Your task to perform on an android device: change the clock style Image 0: 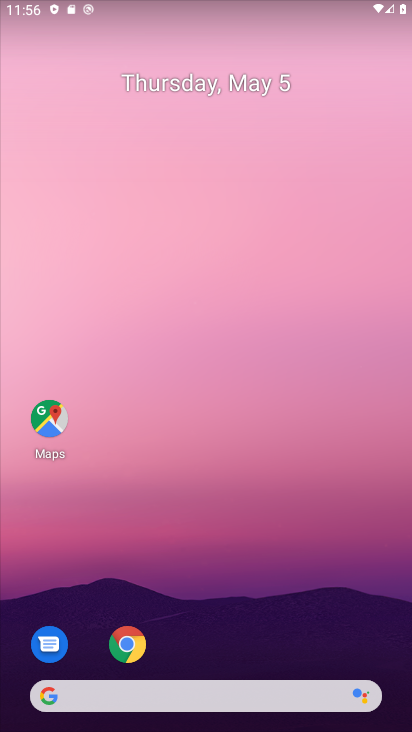
Step 0: drag from (7, 675) to (240, 181)
Your task to perform on an android device: change the clock style Image 1: 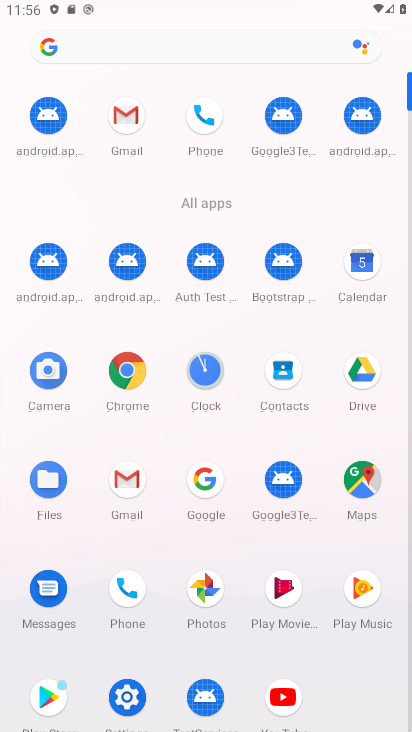
Step 1: click (208, 363)
Your task to perform on an android device: change the clock style Image 2: 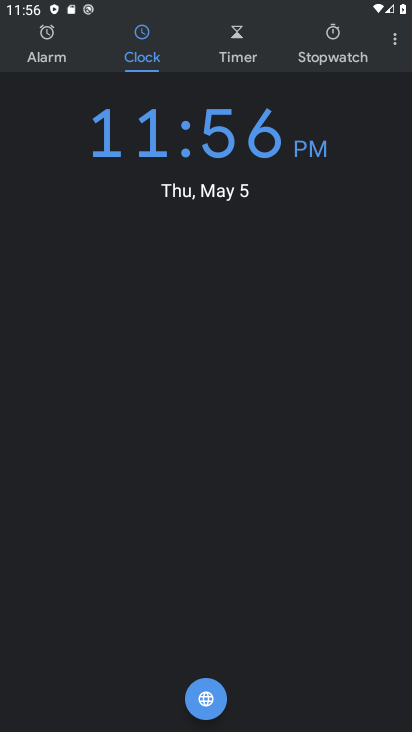
Step 2: click (390, 36)
Your task to perform on an android device: change the clock style Image 3: 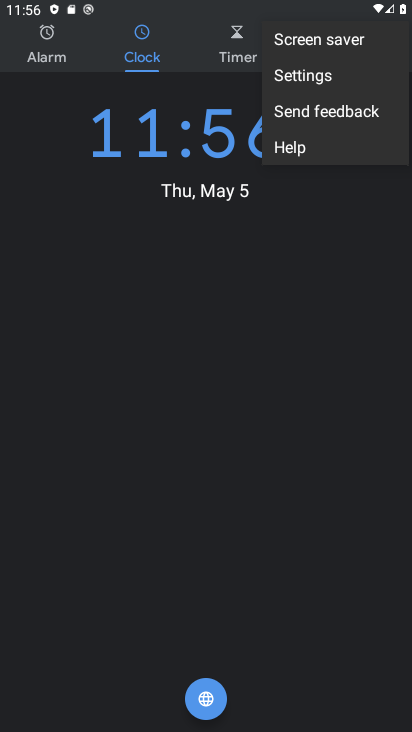
Step 3: click (306, 81)
Your task to perform on an android device: change the clock style Image 4: 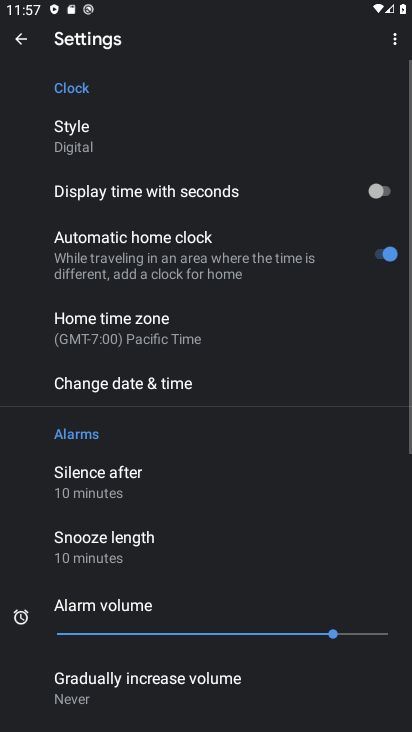
Step 4: click (84, 128)
Your task to perform on an android device: change the clock style Image 5: 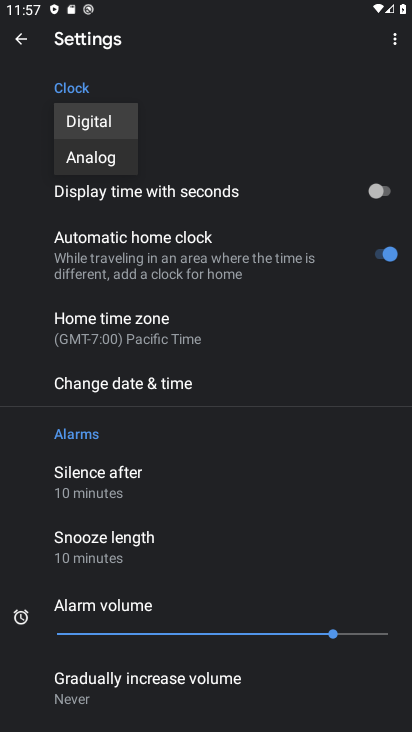
Step 5: click (90, 165)
Your task to perform on an android device: change the clock style Image 6: 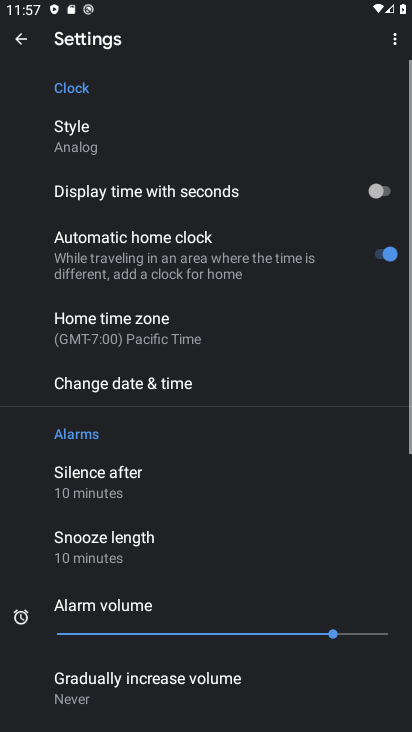
Step 6: task complete